Your task to perform on an android device: delete location history Image 0: 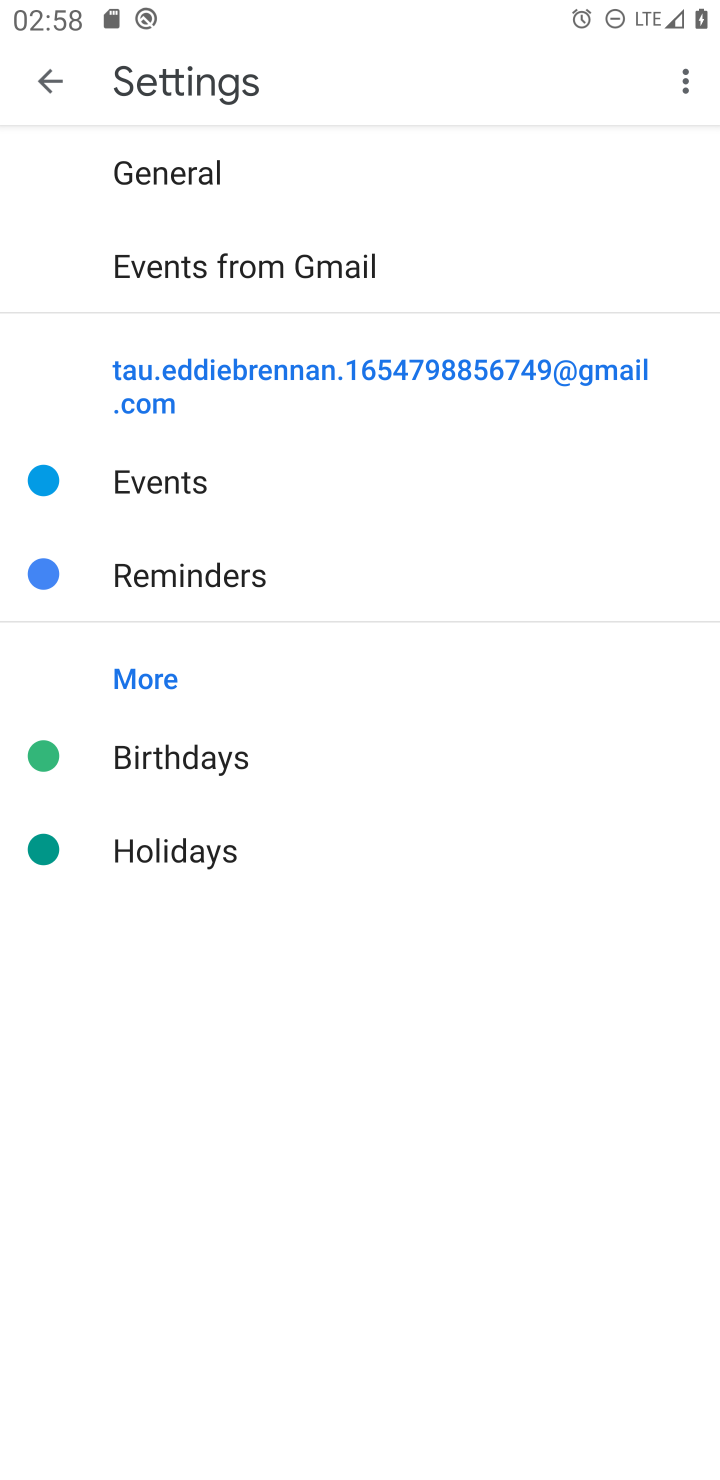
Step 0: press home button
Your task to perform on an android device: delete location history Image 1: 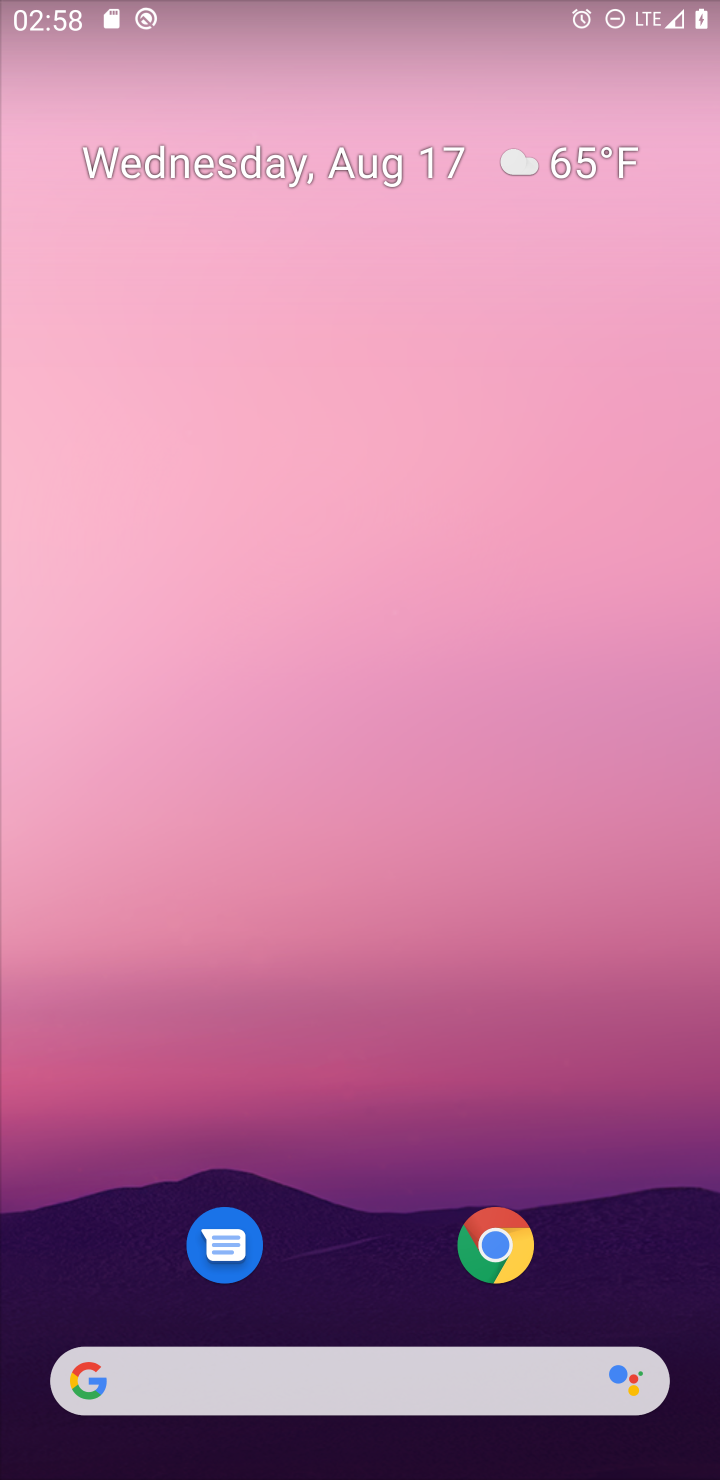
Step 1: drag from (409, 1172) to (417, 133)
Your task to perform on an android device: delete location history Image 2: 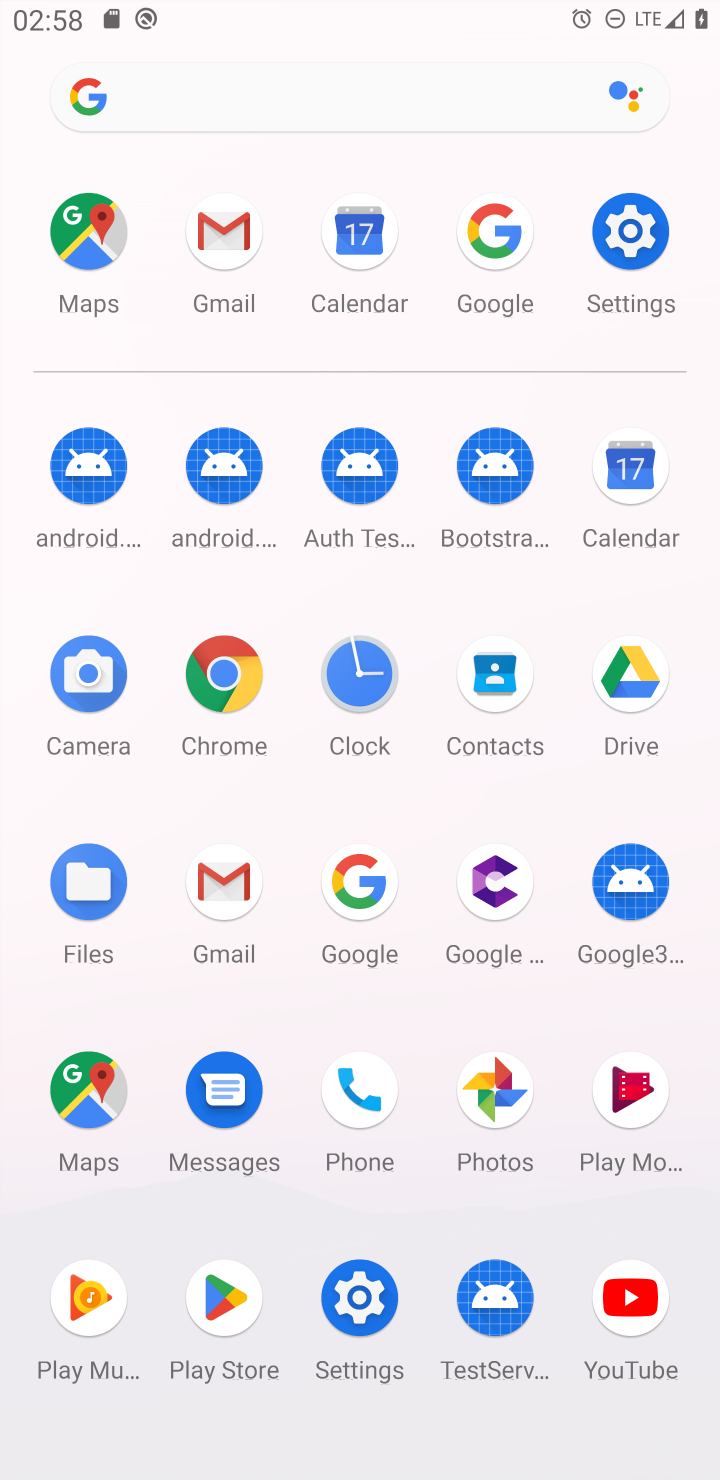
Step 2: click (88, 1093)
Your task to perform on an android device: delete location history Image 3: 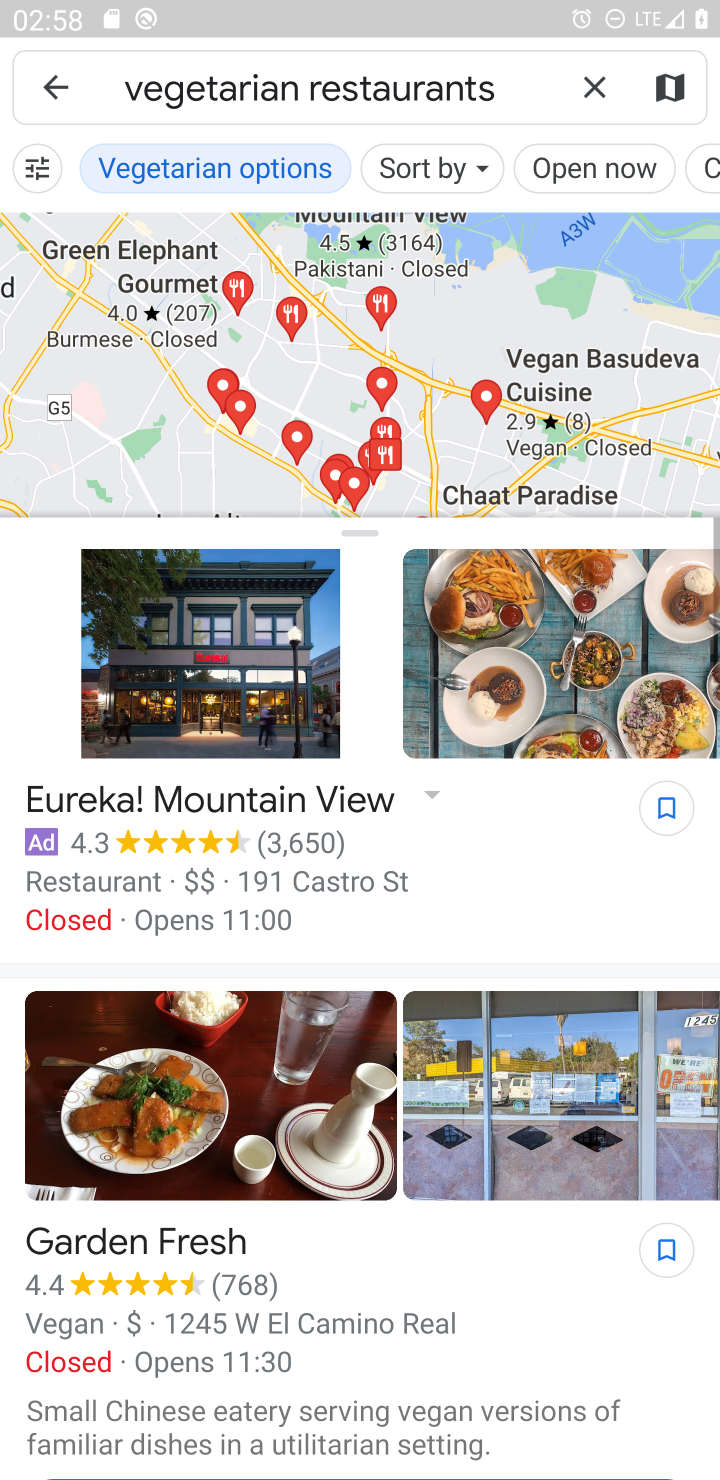
Step 3: click (60, 79)
Your task to perform on an android device: delete location history Image 4: 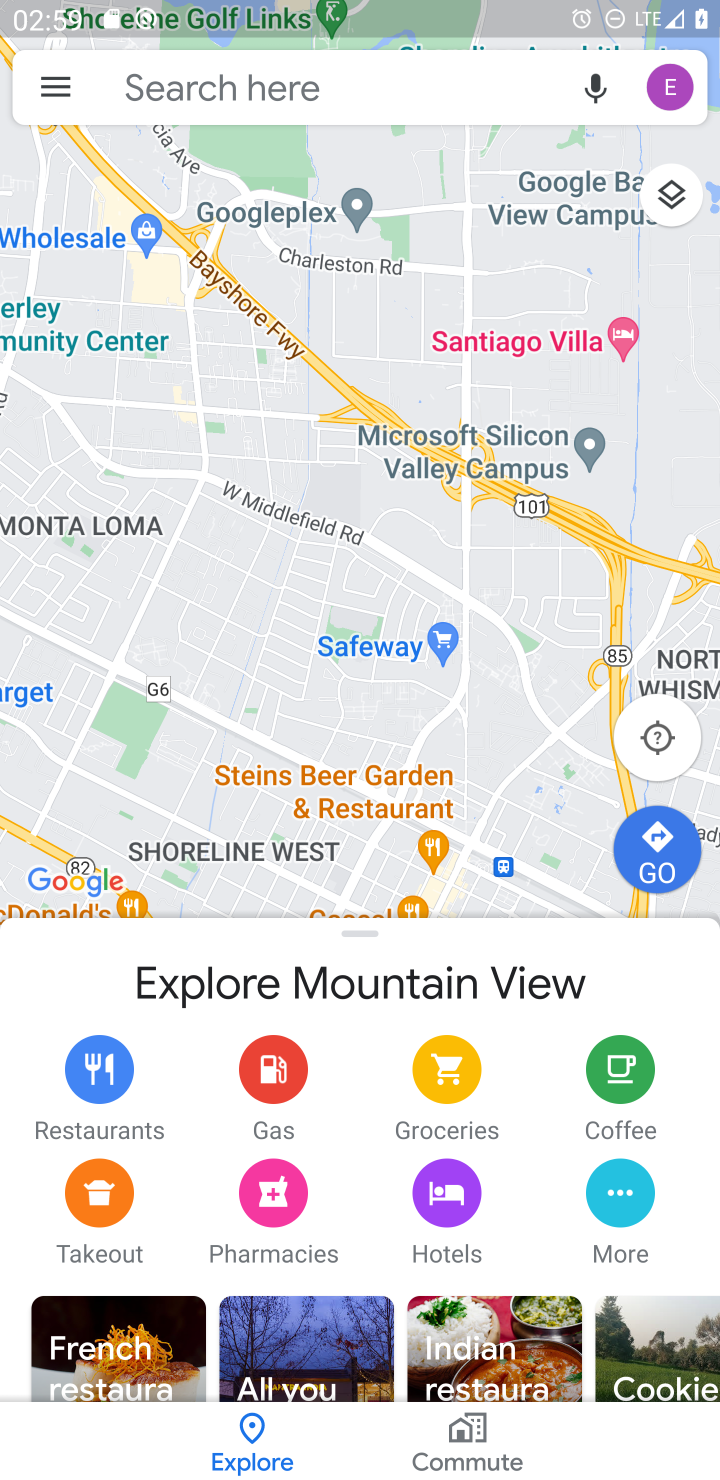
Step 4: click (56, 79)
Your task to perform on an android device: delete location history Image 5: 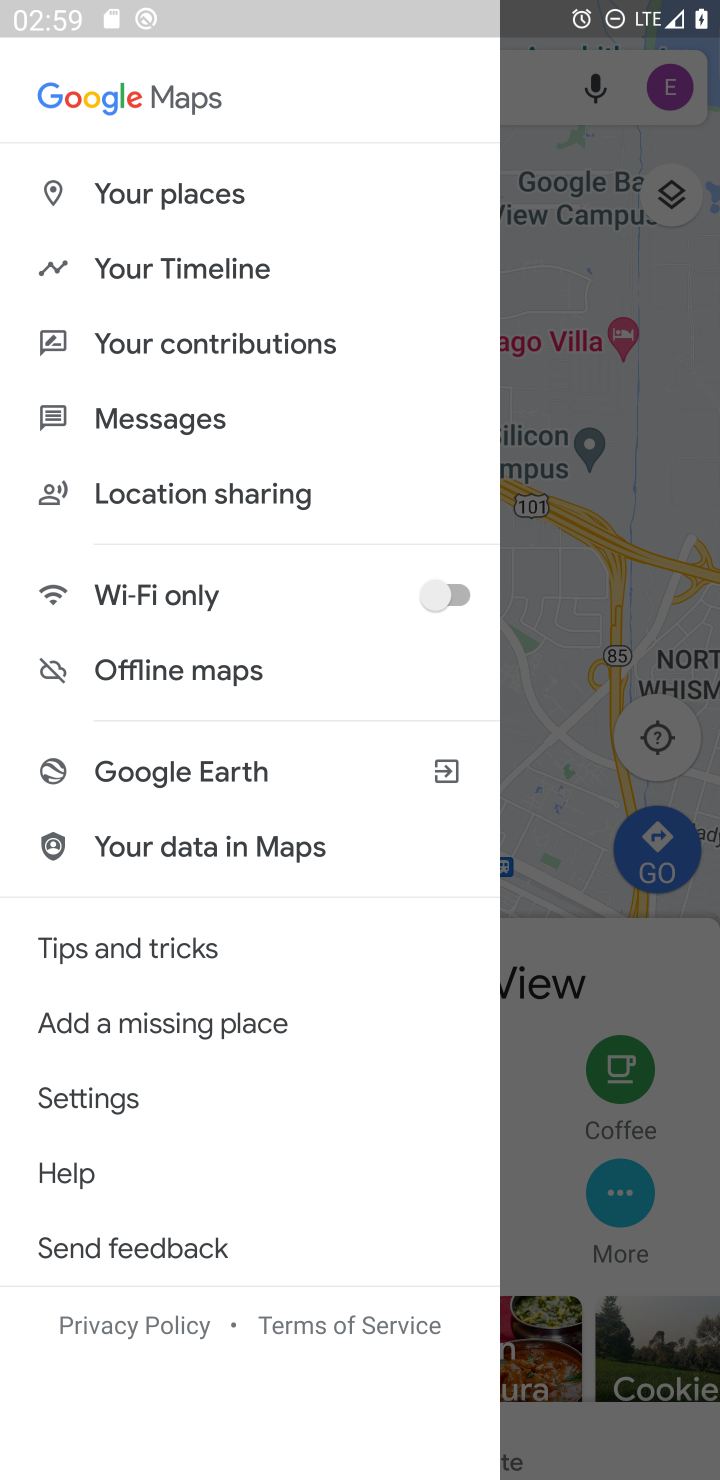
Step 5: click (202, 267)
Your task to perform on an android device: delete location history Image 6: 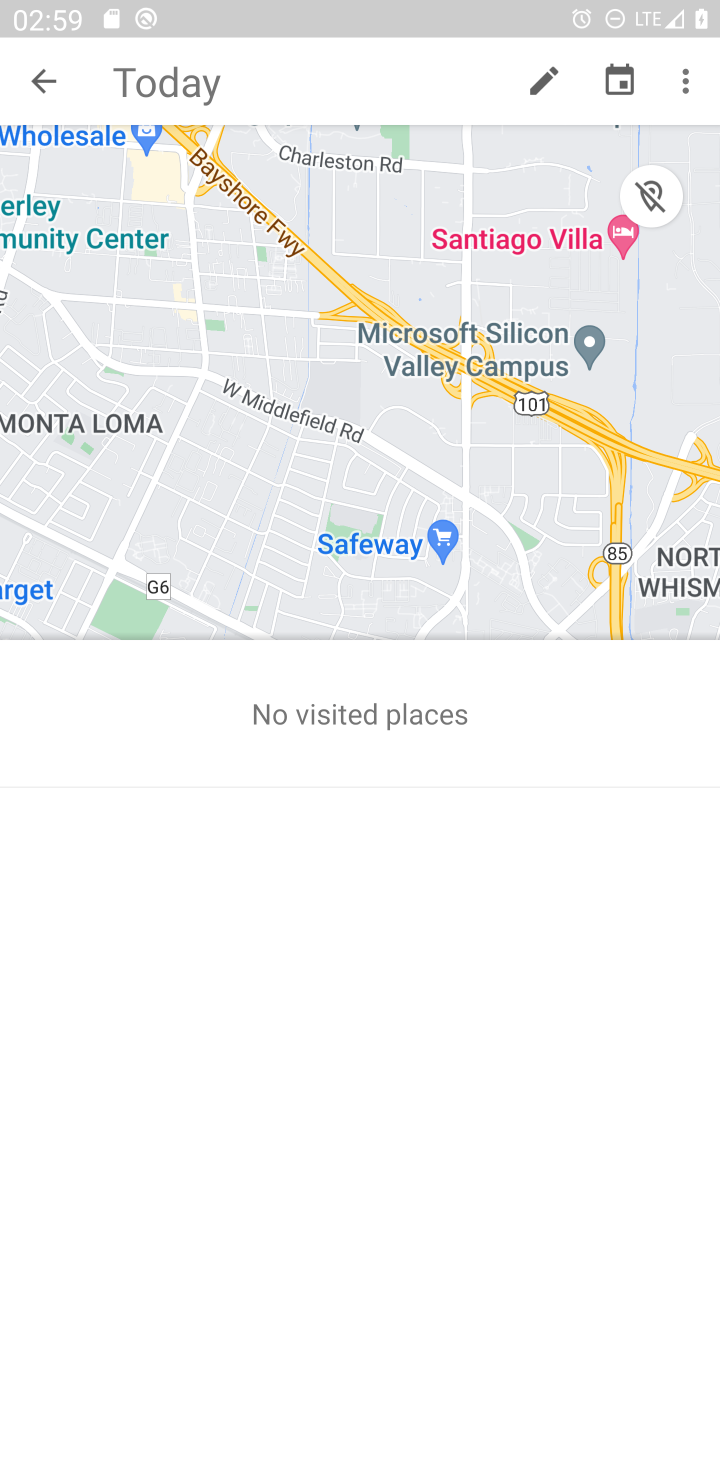
Step 6: click (682, 88)
Your task to perform on an android device: delete location history Image 7: 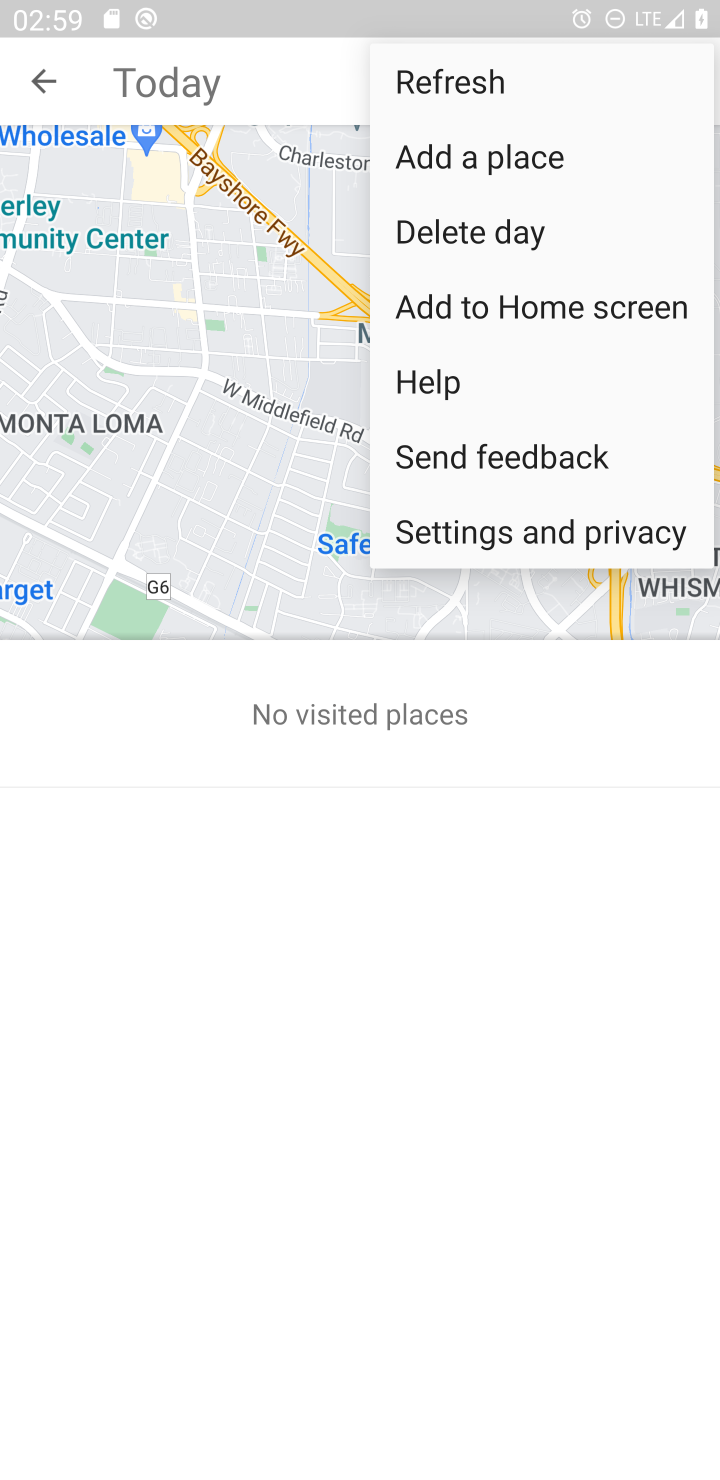
Step 7: click (494, 532)
Your task to perform on an android device: delete location history Image 8: 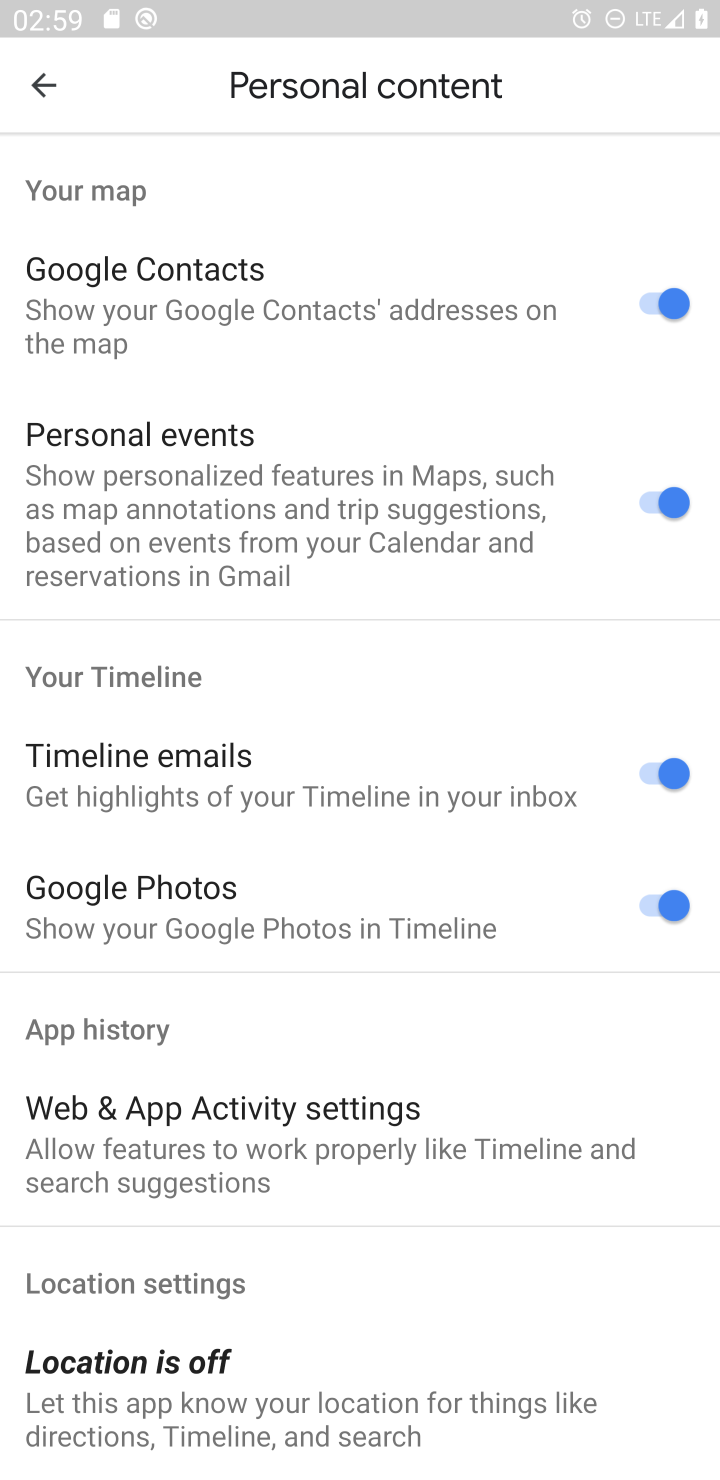
Step 8: drag from (262, 1278) to (257, 626)
Your task to perform on an android device: delete location history Image 9: 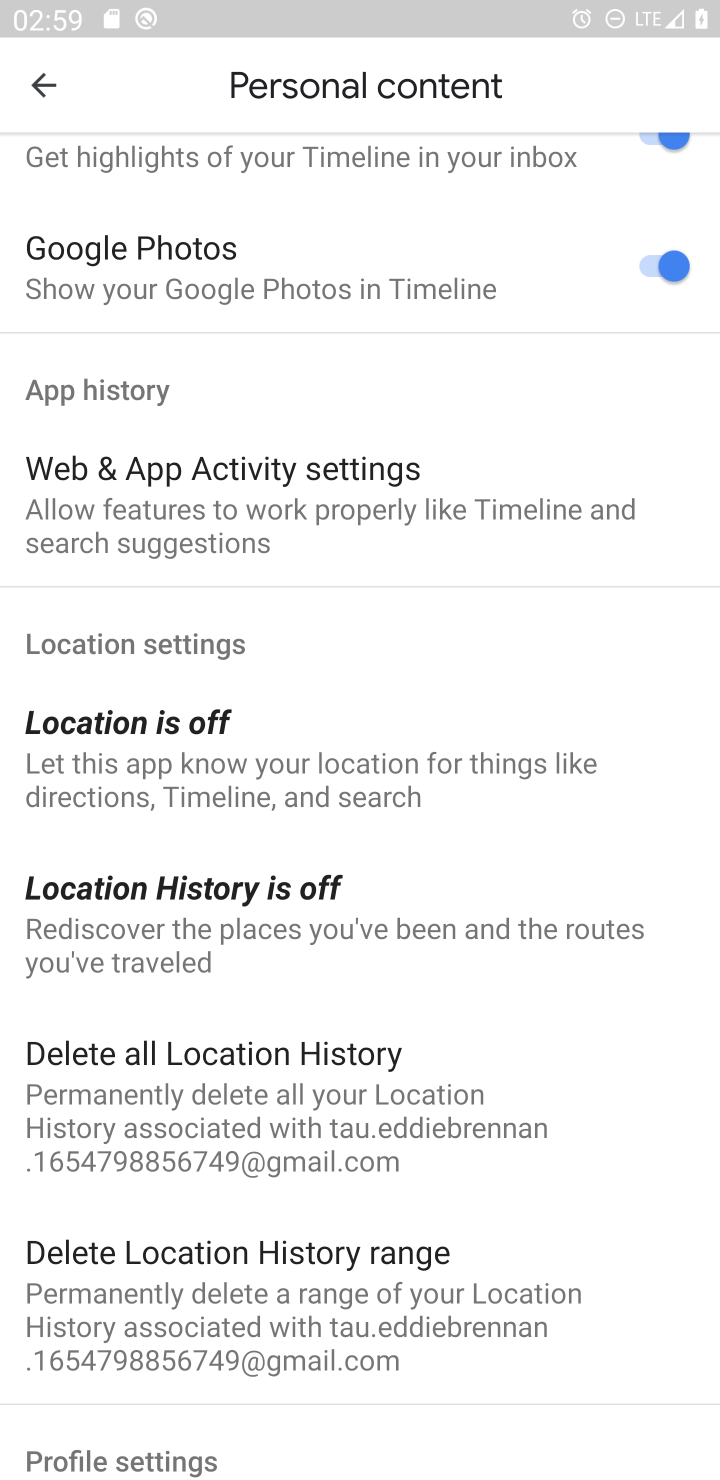
Step 9: click (239, 1066)
Your task to perform on an android device: delete location history Image 10: 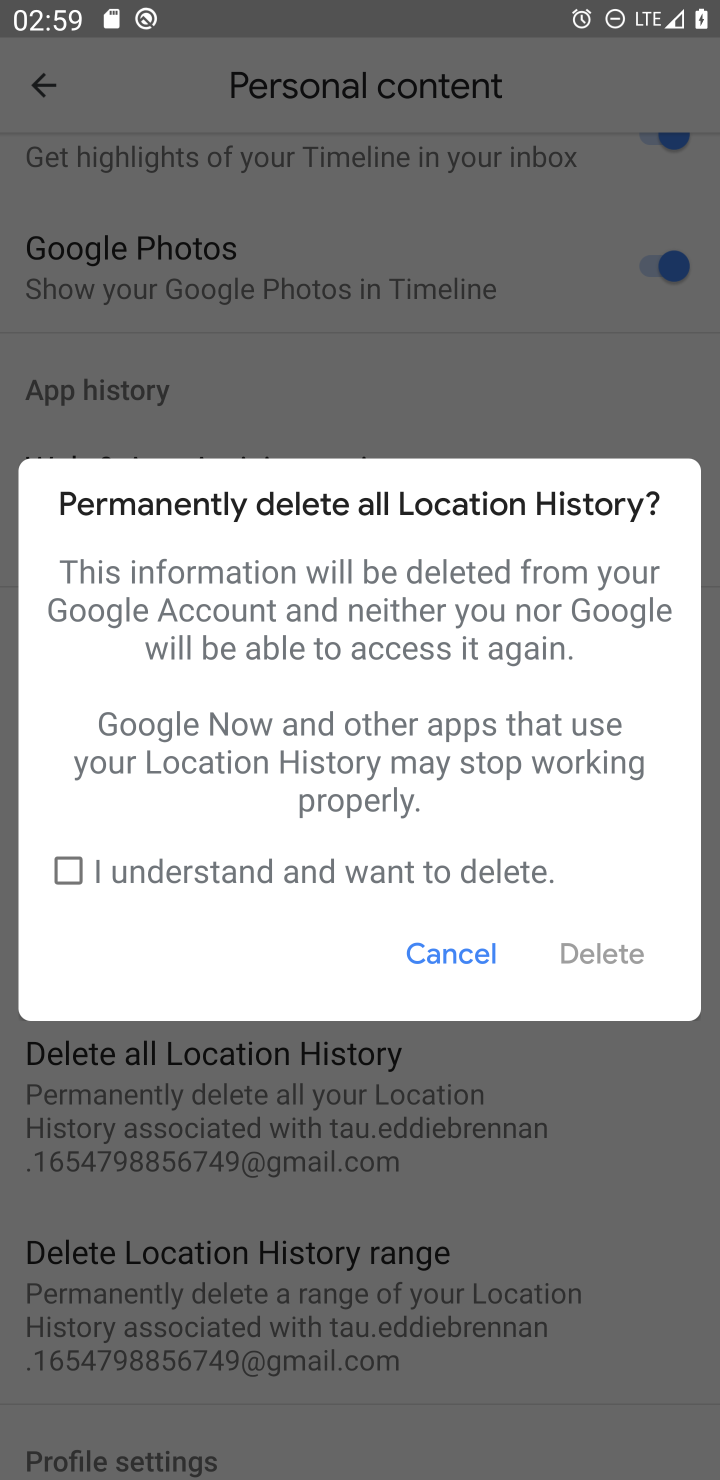
Step 10: click (69, 864)
Your task to perform on an android device: delete location history Image 11: 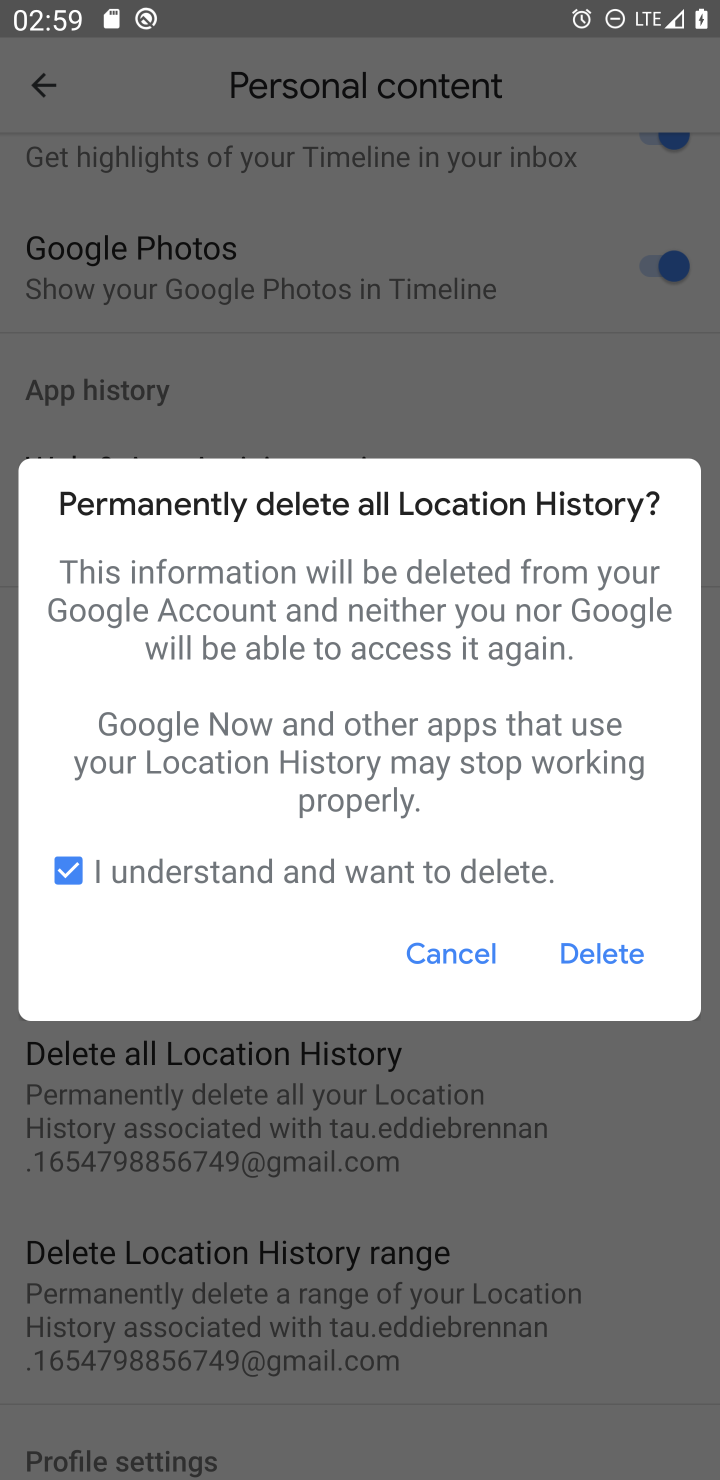
Step 11: click (619, 946)
Your task to perform on an android device: delete location history Image 12: 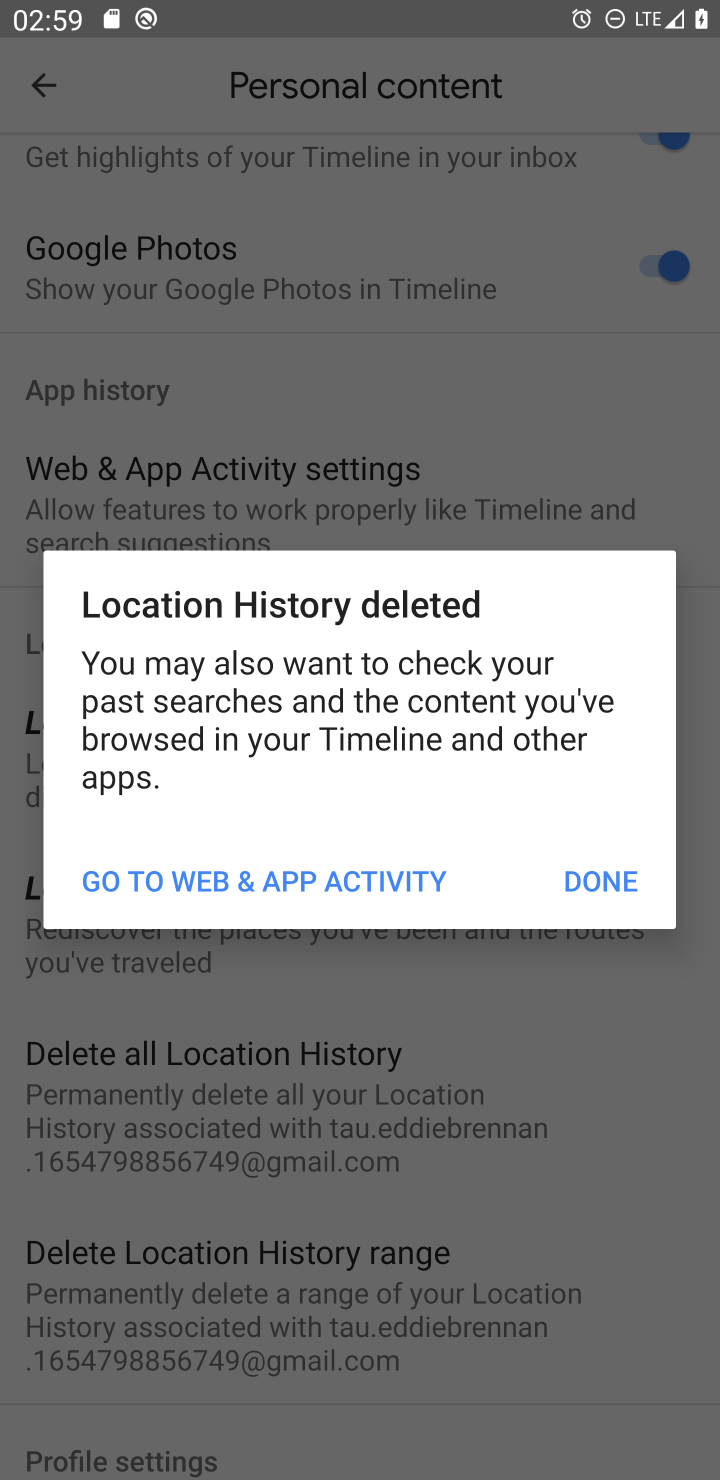
Step 12: click (585, 876)
Your task to perform on an android device: delete location history Image 13: 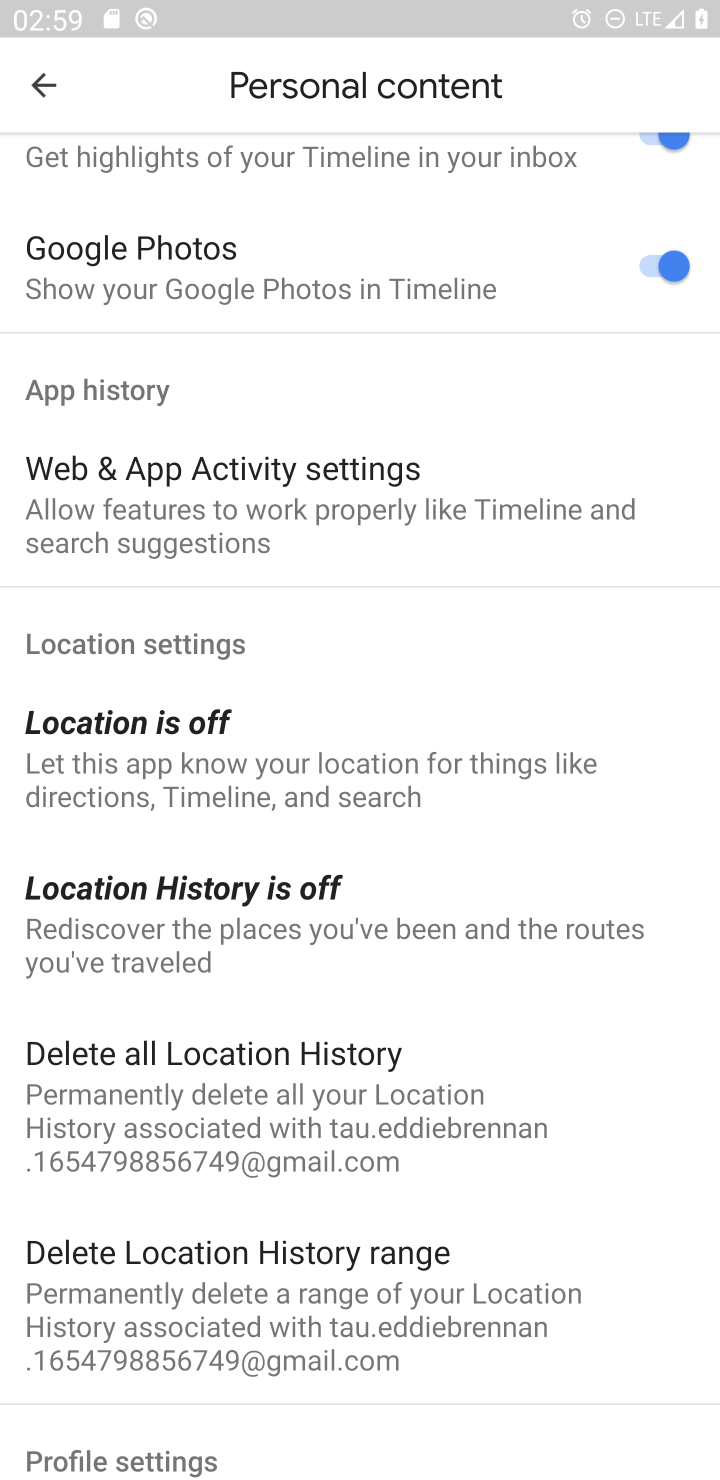
Step 13: task complete